Your task to perform on an android device: Search for Mexican restaurants on Maps Image 0: 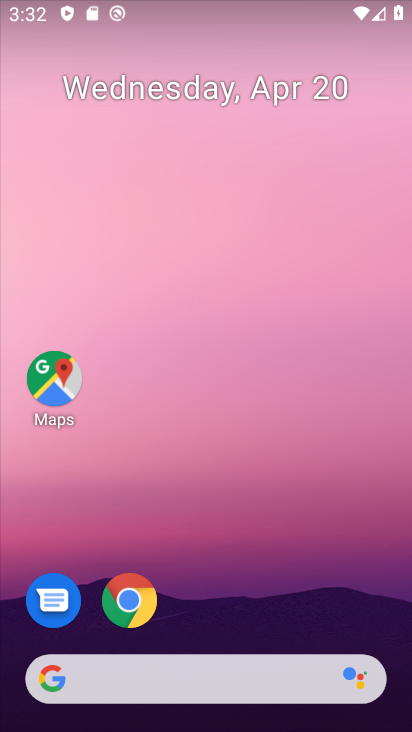
Step 0: click (56, 386)
Your task to perform on an android device: Search for Mexican restaurants on Maps Image 1: 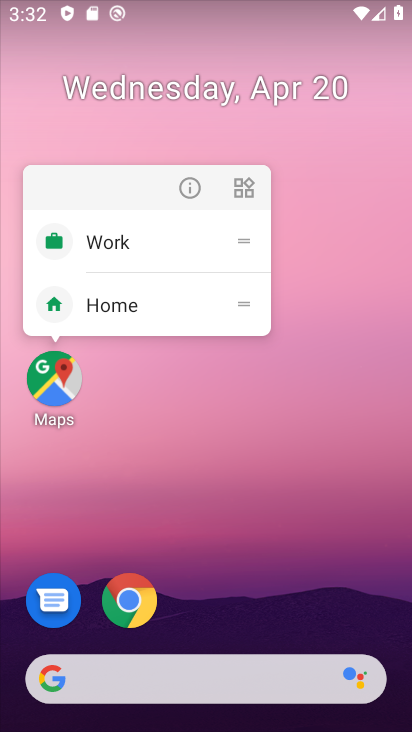
Step 1: click (358, 477)
Your task to perform on an android device: Search for Mexican restaurants on Maps Image 2: 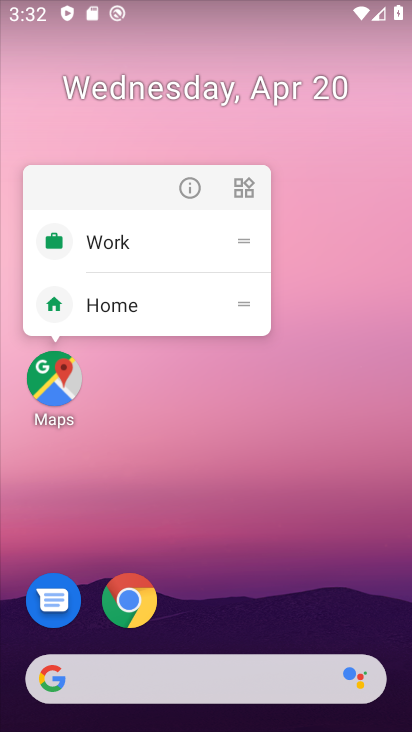
Step 2: drag from (358, 516) to (326, 82)
Your task to perform on an android device: Search for Mexican restaurants on Maps Image 3: 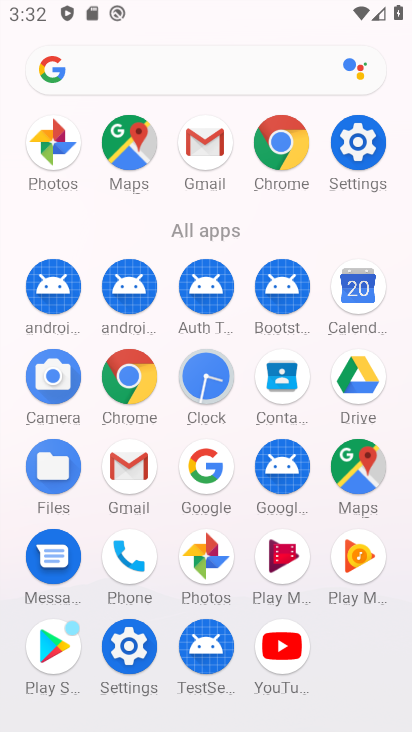
Step 3: click (123, 153)
Your task to perform on an android device: Search for Mexican restaurants on Maps Image 4: 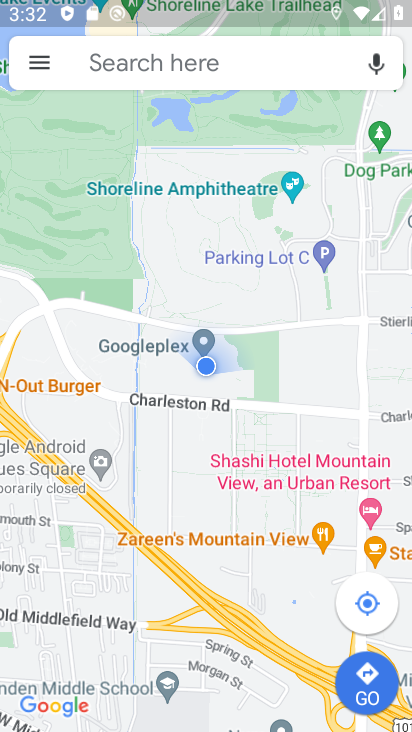
Step 4: click (218, 62)
Your task to perform on an android device: Search for Mexican restaurants on Maps Image 5: 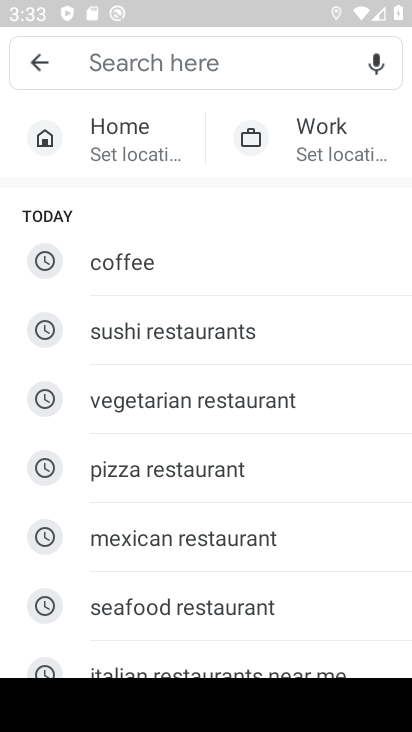
Step 5: type "Mexican restaurants"
Your task to perform on an android device: Search for Mexican restaurants on Maps Image 6: 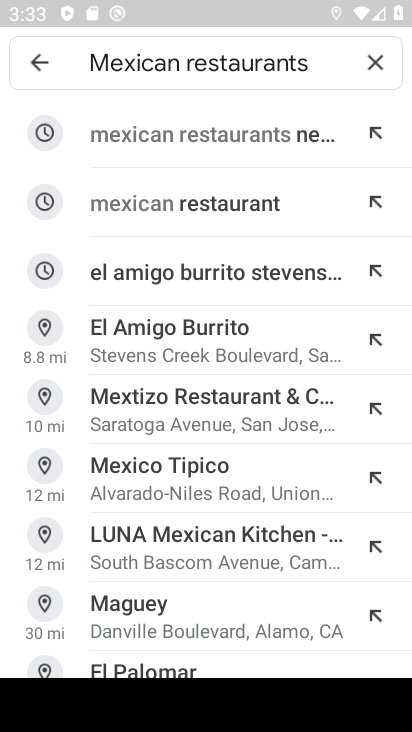
Step 6: press enter
Your task to perform on an android device: Search for Mexican restaurants on Maps Image 7: 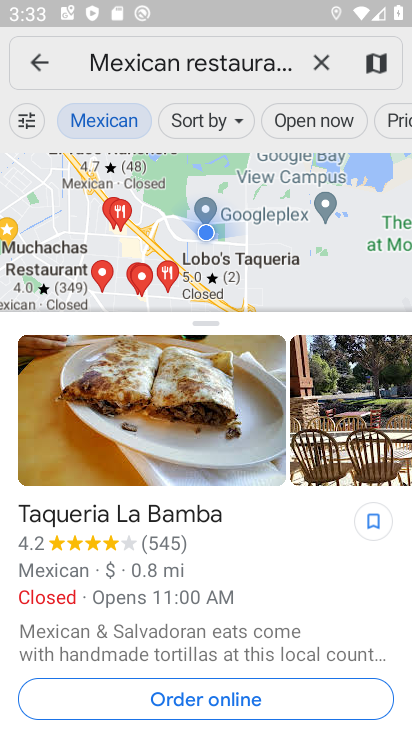
Step 7: task complete